Your task to perform on an android device: turn off notifications in google photos Image 0: 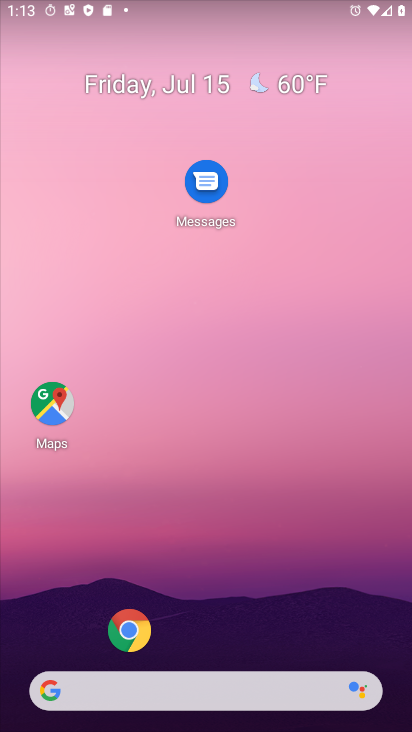
Step 0: drag from (86, 381) to (141, 129)
Your task to perform on an android device: turn off notifications in google photos Image 1: 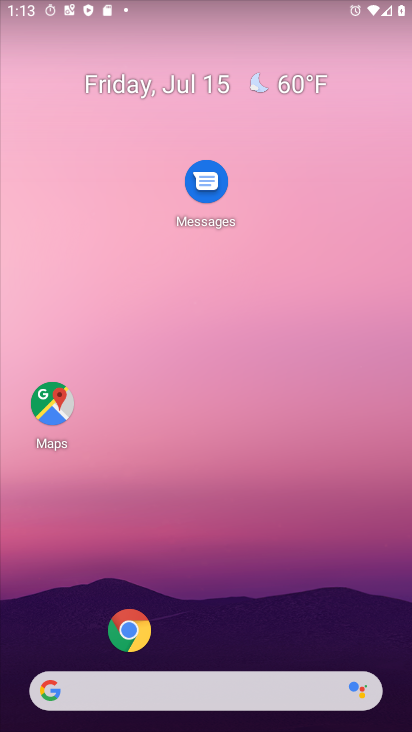
Step 1: drag from (60, 565) to (237, 120)
Your task to perform on an android device: turn off notifications in google photos Image 2: 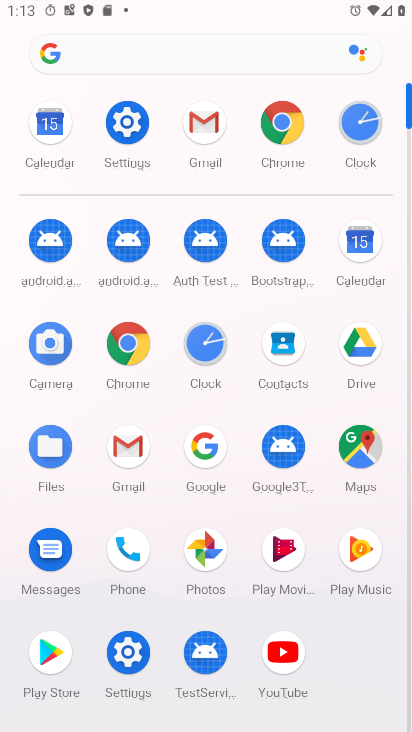
Step 2: click (193, 563)
Your task to perform on an android device: turn off notifications in google photos Image 3: 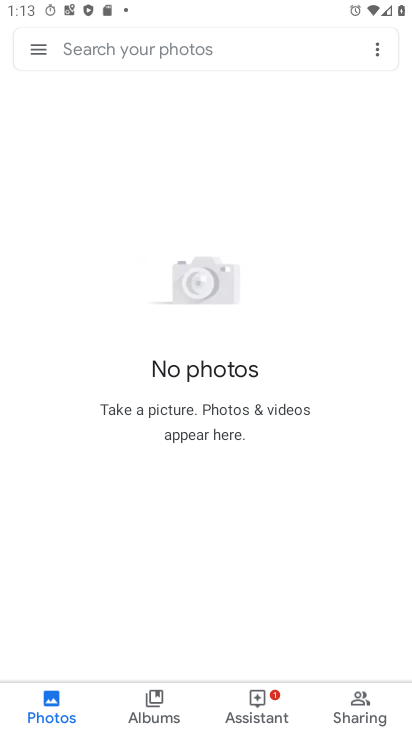
Step 3: click (33, 44)
Your task to perform on an android device: turn off notifications in google photos Image 4: 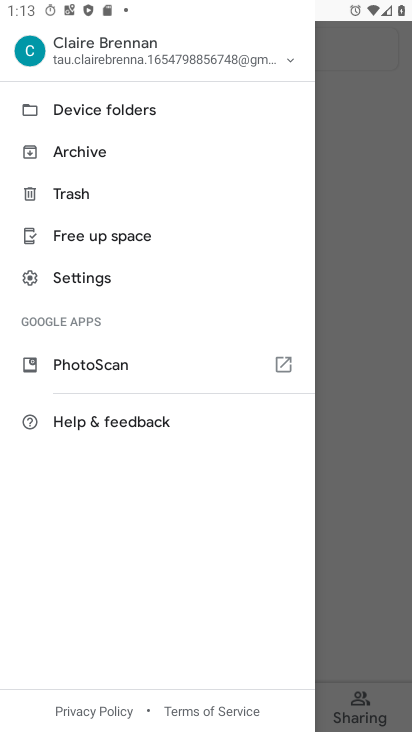
Step 4: click (75, 273)
Your task to perform on an android device: turn off notifications in google photos Image 5: 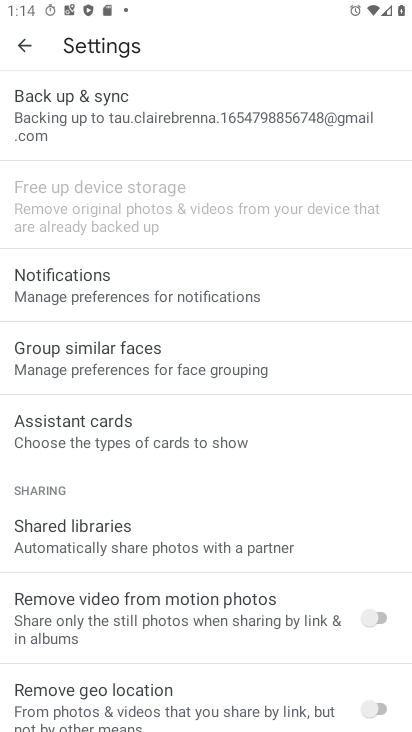
Step 5: click (174, 298)
Your task to perform on an android device: turn off notifications in google photos Image 6: 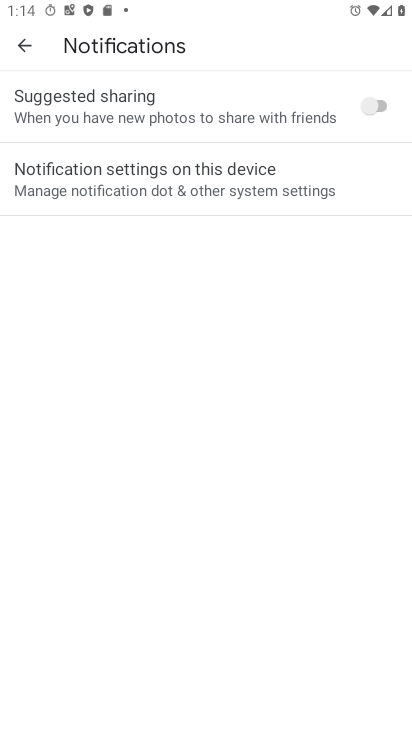
Step 6: click (175, 186)
Your task to perform on an android device: turn off notifications in google photos Image 7: 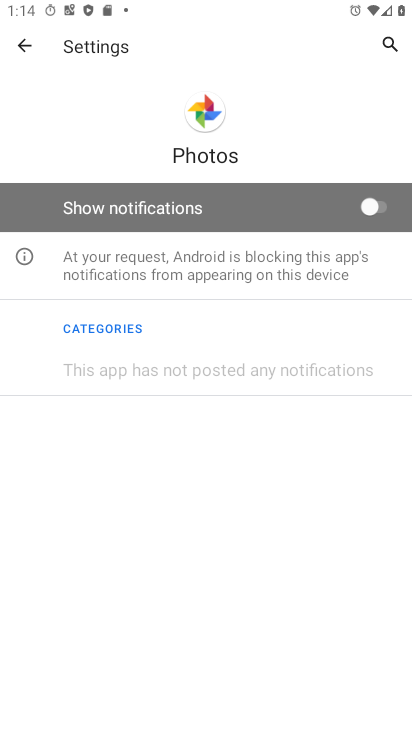
Step 7: click (374, 210)
Your task to perform on an android device: turn off notifications in google photos Image 8: 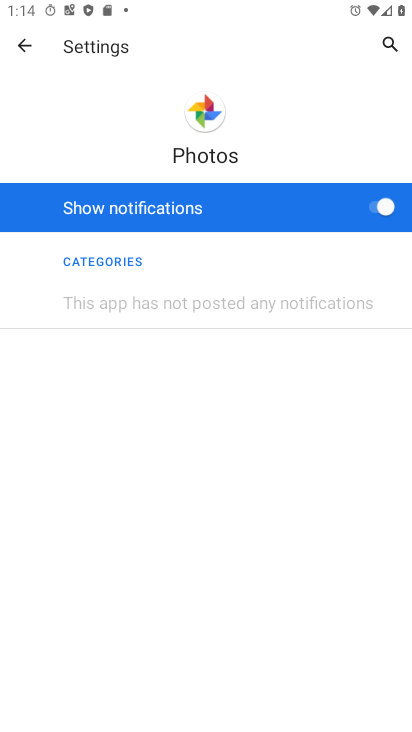
Step 8: task complete